Your task to perform on an android device: add a label to a message in the gmail app Image 0: 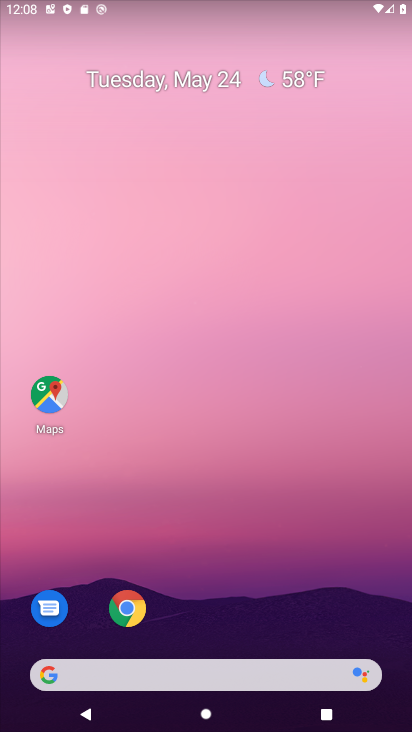
Step 0: press home button
Your task to perform on an android device: add a label to a message in the gmail app Image 1: 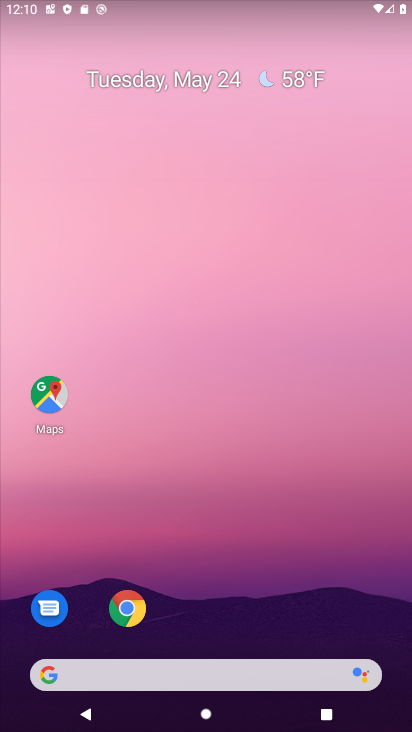
Step 1: drag from (241, 691) to (219, 139)
Your task to perform on an android device: add a label to a message in the gmail app Image 2: 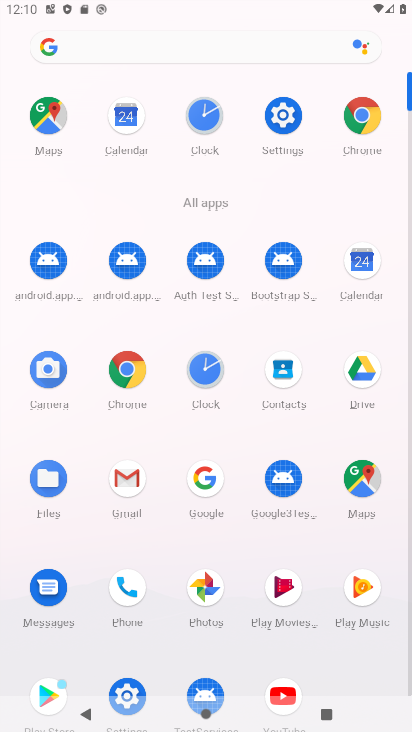
Step 2: click (136, 481)
Your task to perform on an android device: add a label to a message in the gmail app Image 3: 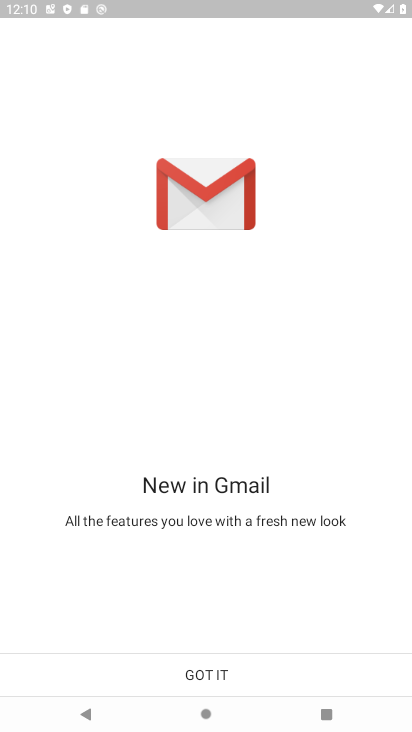
Step 3: click (215, 664)
Your task to perform on an android device: add a label to a message in the gmail app Image 4: 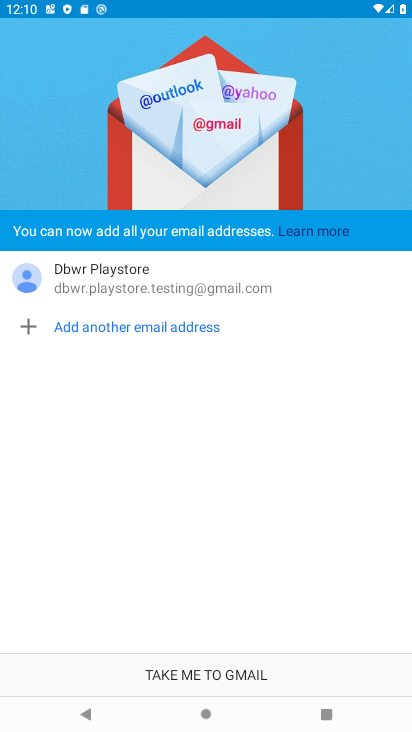
Step 4: click (214, 673)
Your task to perform on an android device: add a label to a message in the gmail app Image 5: 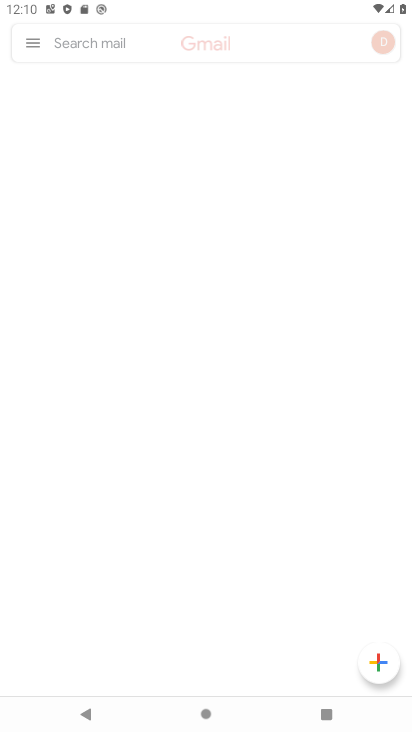
Step 5: click (24, 47)
Your task to perform on an android device: add a label to a message in the gmail app Image 6: 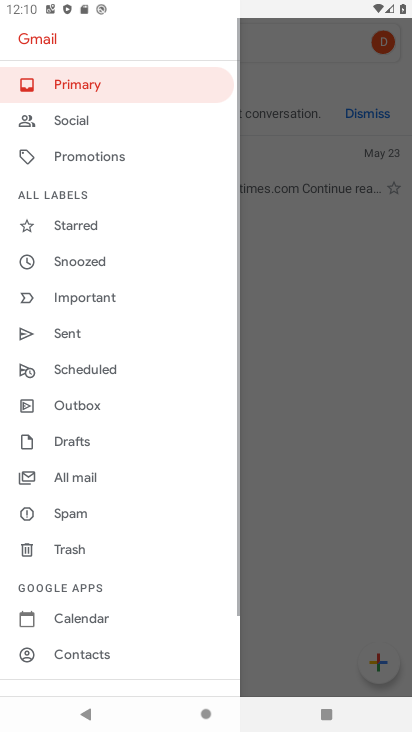
Step 6: drag from (115, 642) to (136, 483)
Your task to perform on an android device: add a label to a message in the gmail app Image 7: 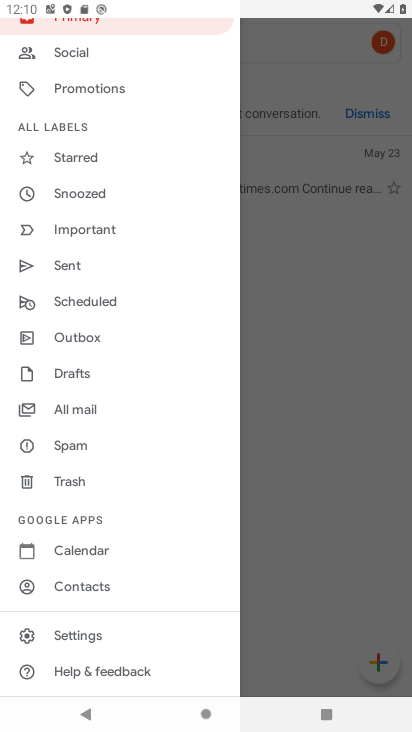
Step 7: click (98, 635)
Your task to perform on an android device: add a label to a message in the gmail app Image 8: 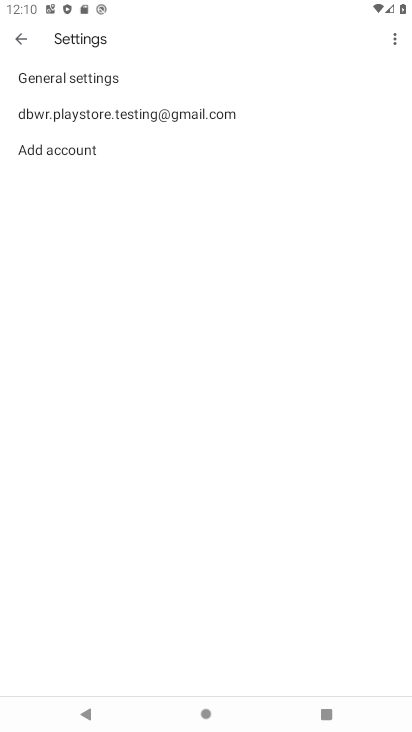
Step 8: click (147, 112)
Your task to perform on an android device: add a label to a message in the gmail app Image 9: 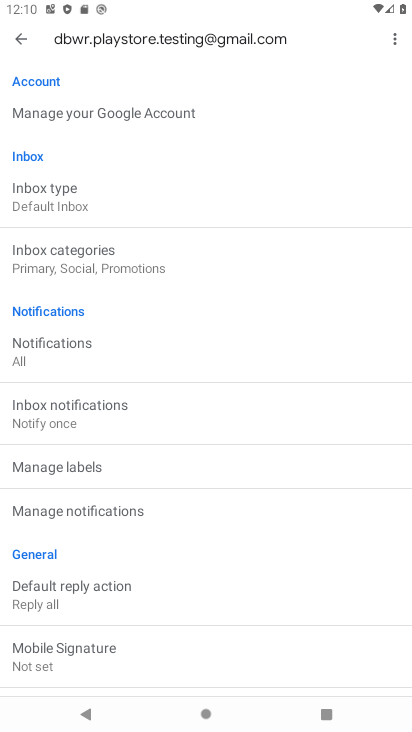
Step 9: click (103, 464)
Your task to perform on an android device: add a label to a message in the gmail app Image 10: 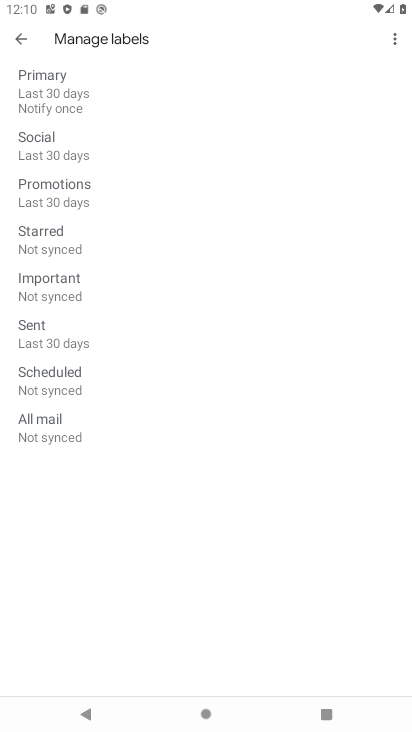
Step 10: task complete